Your task to perform on an android device: Go to ESPN.com Image 0: 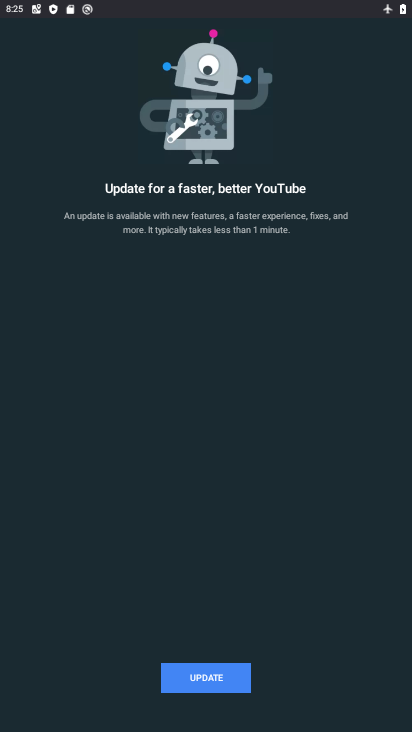
Step 0: press home button
Your task to perform on an android device: Go to ESPN.com Image 1: 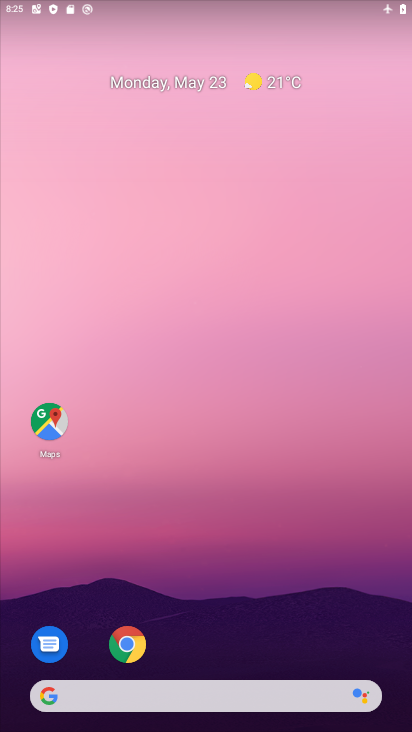
Step 1: click (162, 696)
Your task to perform on an android device: Go to ESPN.com Image 2: 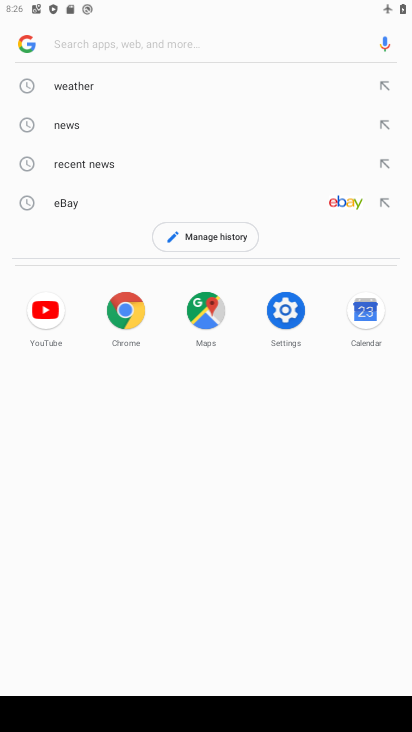
Step 2: type "espn.com"
Your task to perform on an android device: Go to ESPN.com Image 3: 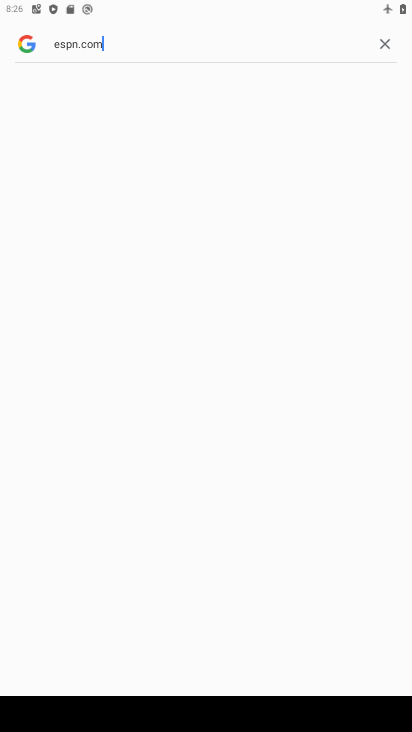
Step 3: task complete